Your task to perform on an android device: Search for sushi restaurants on Maps Image 0: 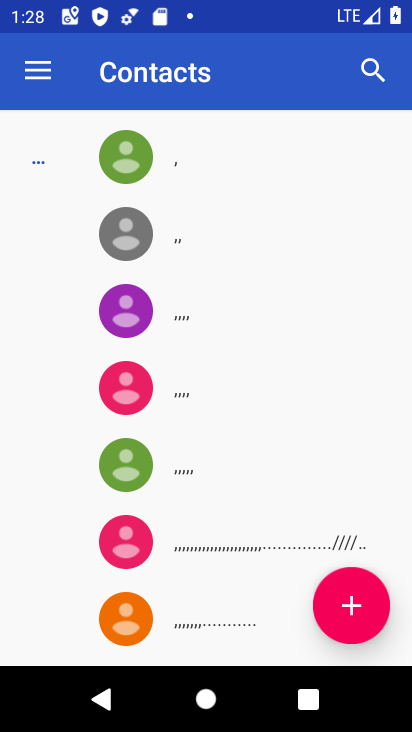
Step 0: press home button
Your task to perform on an android device: Search for sushi restaurants on Maps Image 1: 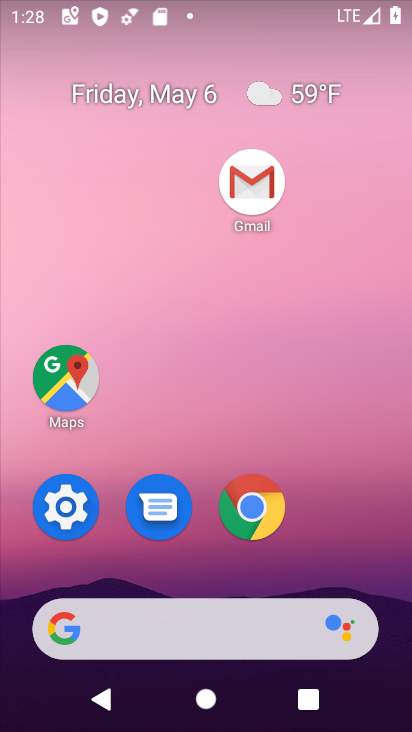
Step 1: click (58, 362)
Your task to perform on an android device: Search for sushi restaurants on Maps Image 2: 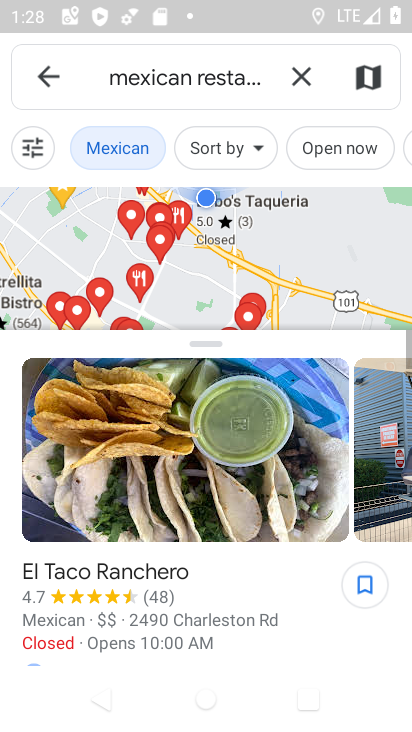
Step 2: click (299, 74)
Your task to perform on an android device: Search for sushi restaurants on Maps Image 3: 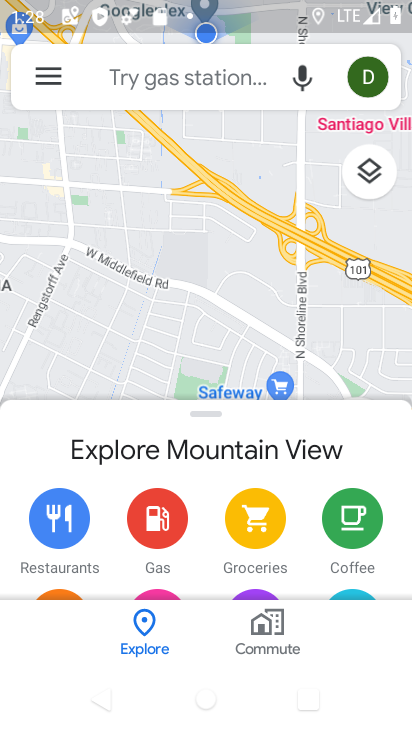
Step 3: click (176, 76)
Your task to perform on an android device: Search for sushi restaurants on Maps Image 4: 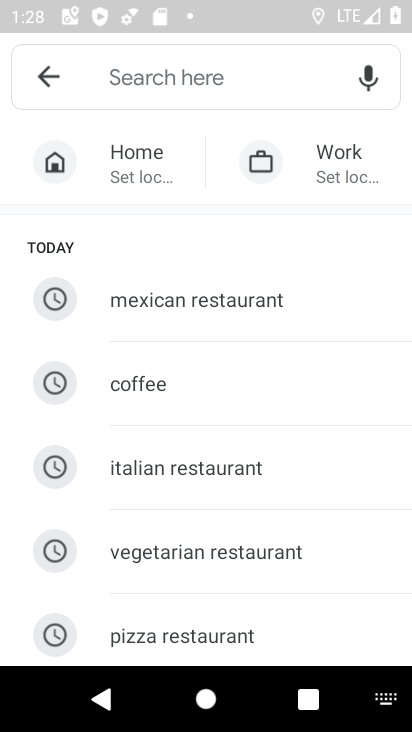
Step 4: drag from (181, 581) to (162, 318)
Your task to perform on an android device: Search for sushi restaurants on Maps Image 5: 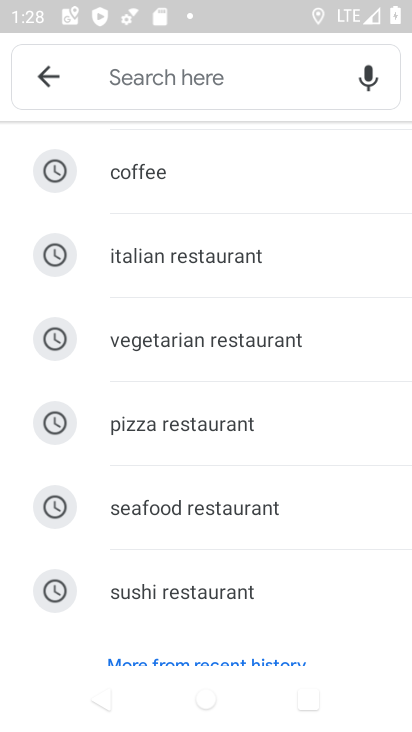
Step 5: click (222, 586)
Your task to perform on an android device: Search for sushi restaurants on Maps Image 6: 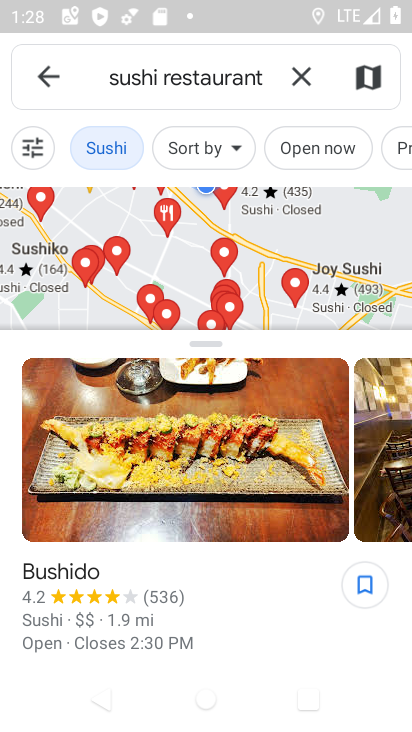
Step 6: task complete